Your task to perform on an android device: change the clock display to digital Image 0: 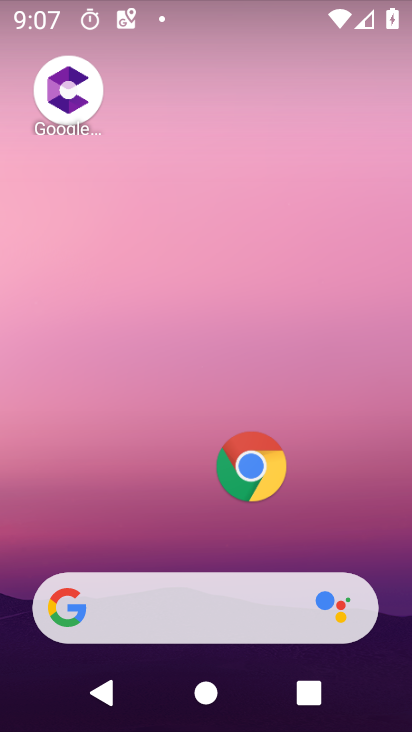
Step 0: drag from (205, 530) to (121, 6)
Your task to perform on an android device: change the clock display to digital Image 1: 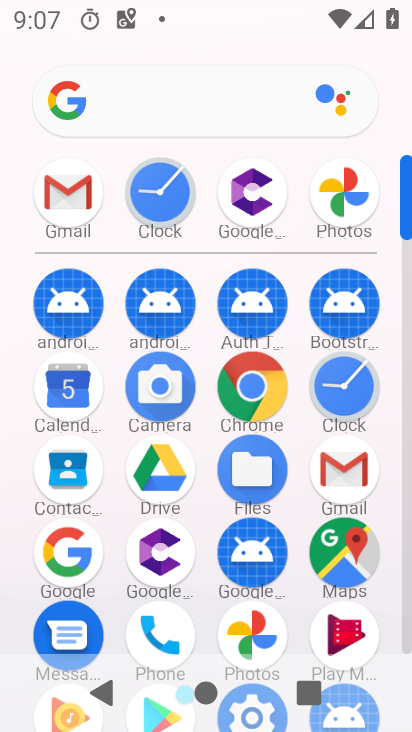
Step 1: click (344, 390)
Your task to perform on an android device: change the clock display to digital Image 2: 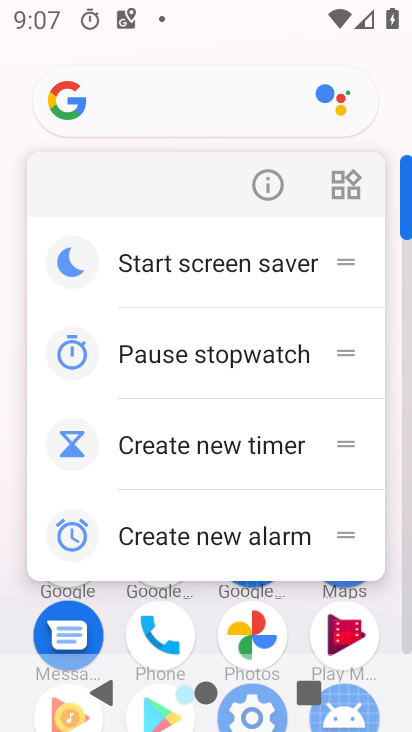
Step 2: click (263, 171)
Your task to perform on an android device: change the clock display to digital Image 3: 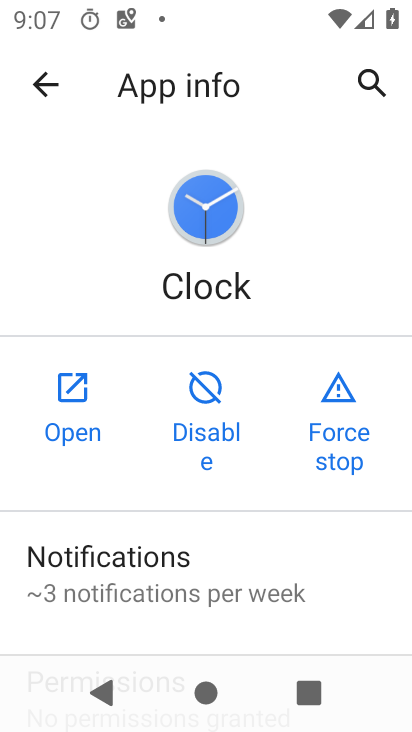
Step 3: click (85, 381)
Your task to perform on an android device: change the clock display to digital Image 4: 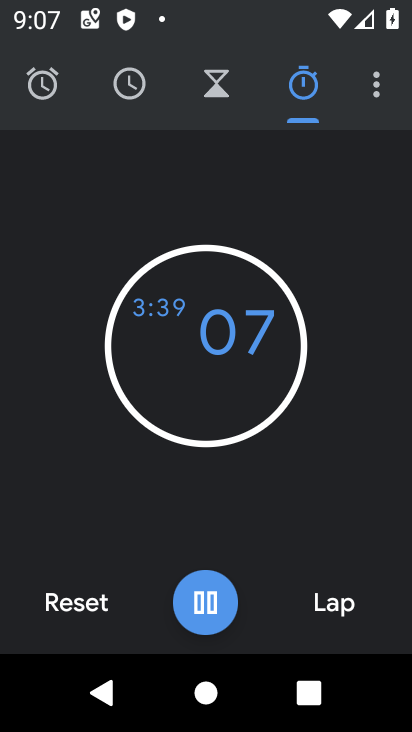
Step 4: click (372, 92)
Your task to perform on an android device: change the clock display to digital Image 5: 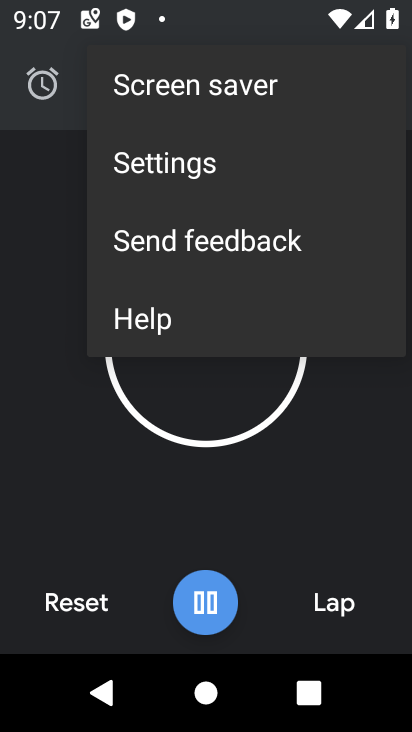
Step 5: click (229, 174)
Your task to perform on an android device: change the clock display to digital Image 6: 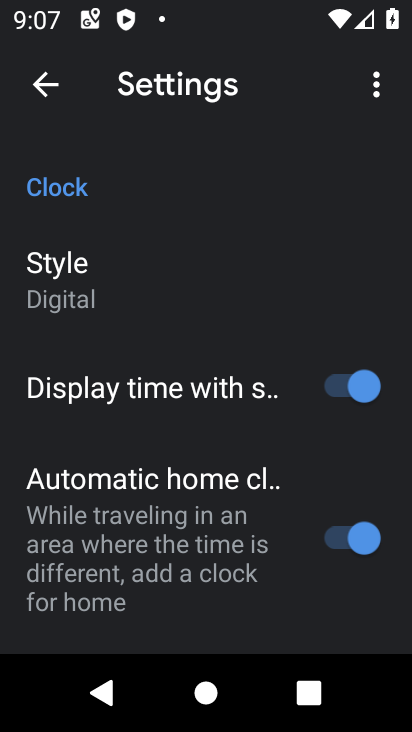
Step 6: click (129, 269)
Your task to perform on an android device: change the clock display to digital Image 7: 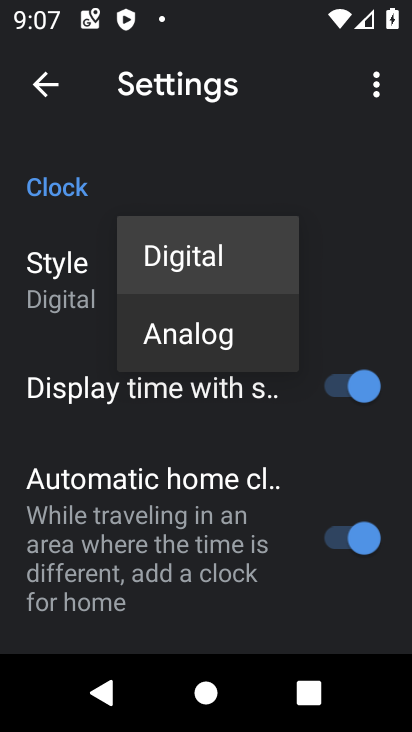
Step 7: click (227, 289)
Your task to perform on an android device: change the clock display to digital Image 8: 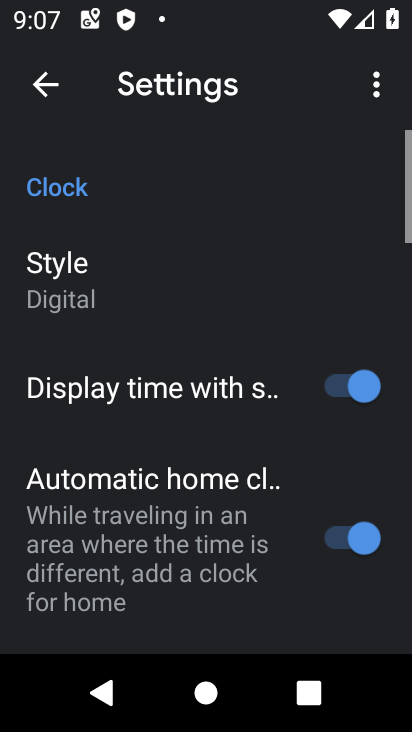
Step 8: task complete